Your task to perform on an android device: Go to Amazon Image 0: 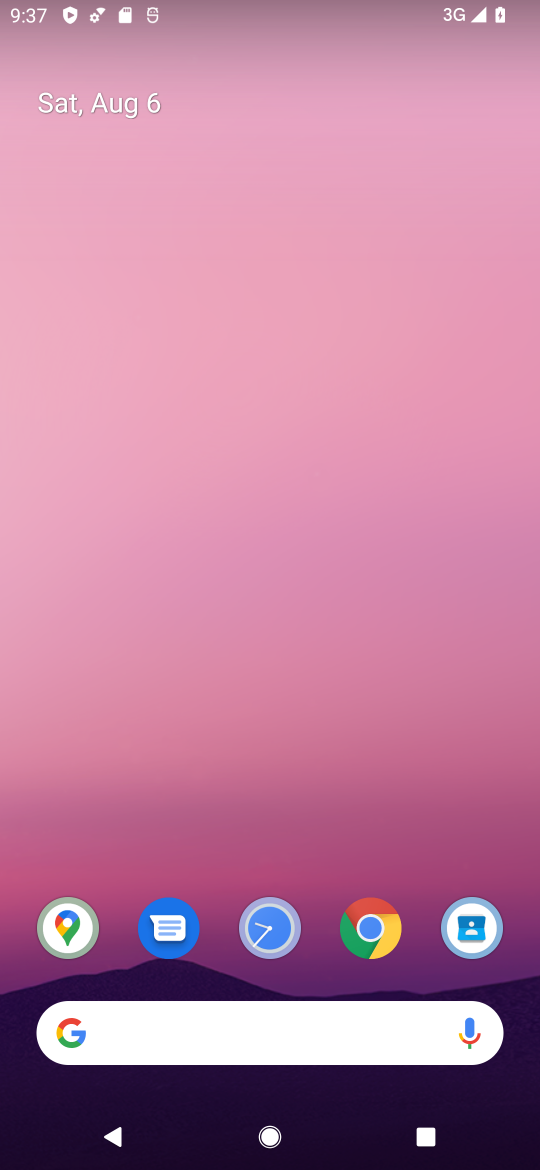
Step 0: click (379, 929)
Your task to perform on an android device: Go to Amazon Image 1: 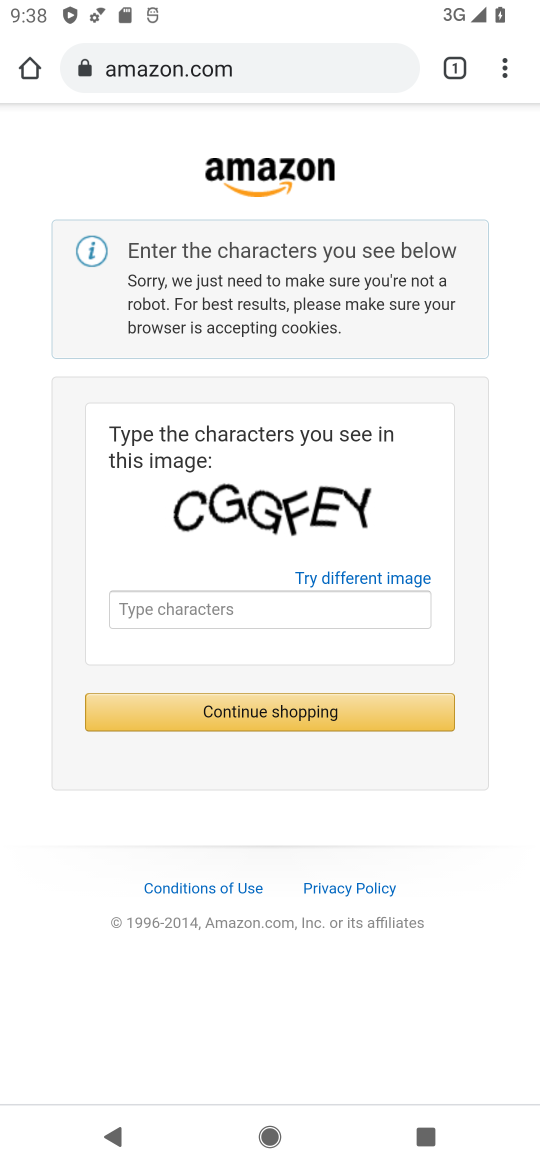
Step 1: task complete